Your task to perform on an android device: turn off sleep mode Image 0: 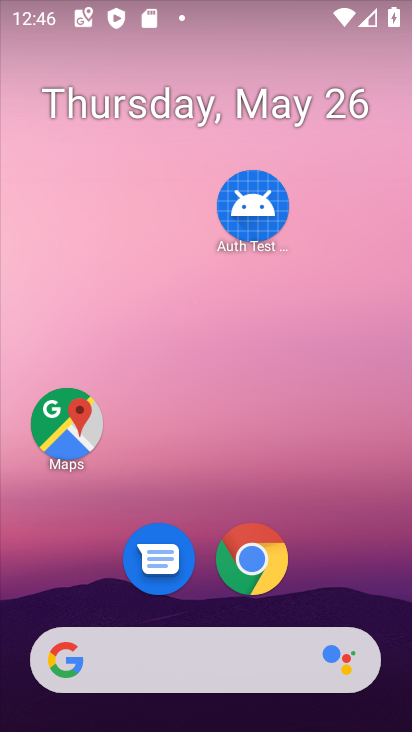
Step 0: drag from (351, 3) to (312, 508)
Your task to perform on an android device: turn off sleep mode Image 1: 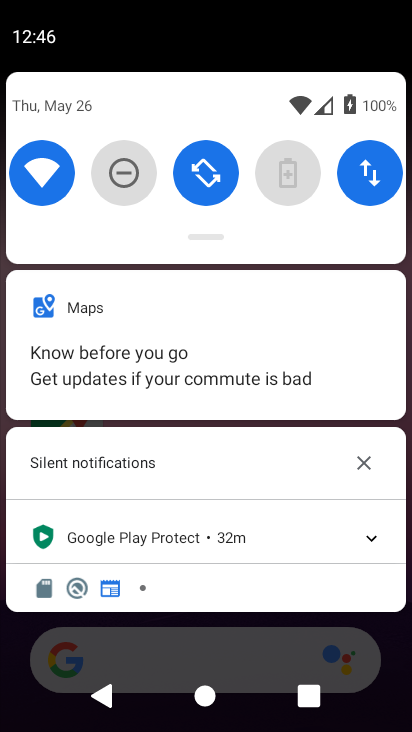
Step 1: drag from (325, 230) to (181, 633)
Your task to perform on an android device: turn off sleep mode Image 2: 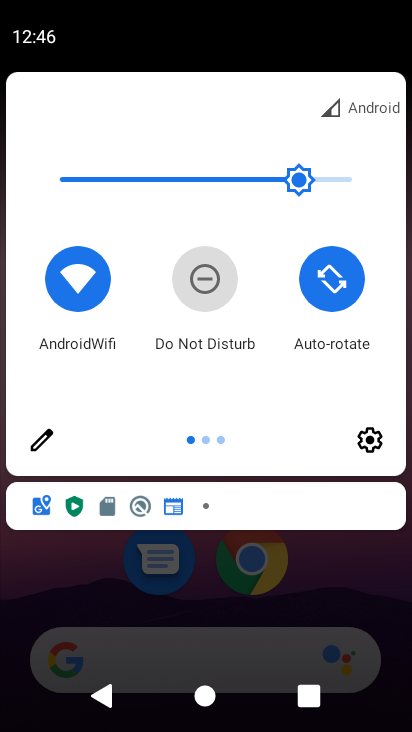
Step 2: click (42, 434)
Your task to perform on an android device: turn off sleep mode Image 3: 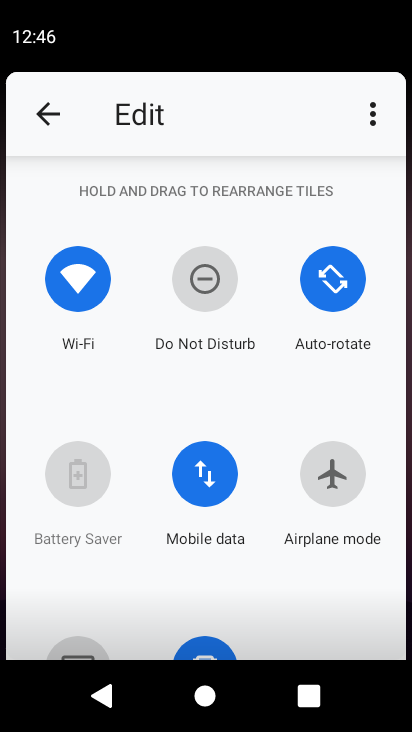
Step 3: task complete